Your task to perform on an android device: Open Google Chrome and click the shortcut for Amazon.com Image 0: 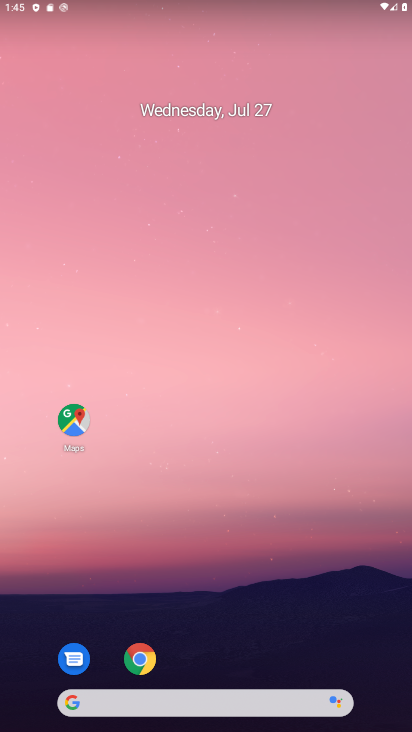
Step 0: click (149, 658)
Your task to perform on an android device: Open Google Chrome and click the shortcut for Amazon.com Image 1: 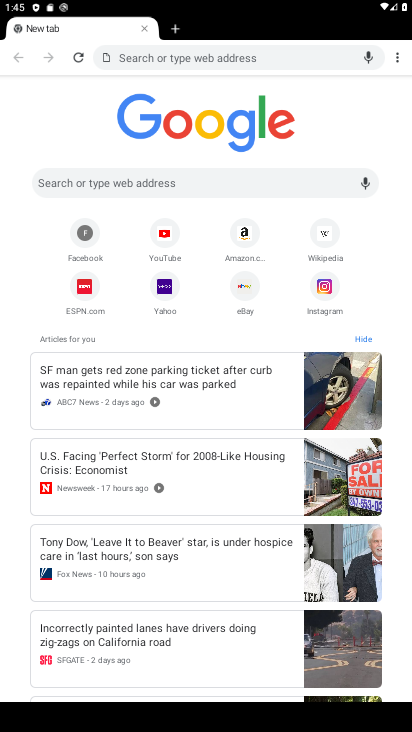
Step 1: click (239, 231)
Your task to perform on an android device: Open Google Chrome and click the shortcut for Amazon.com Image 2: 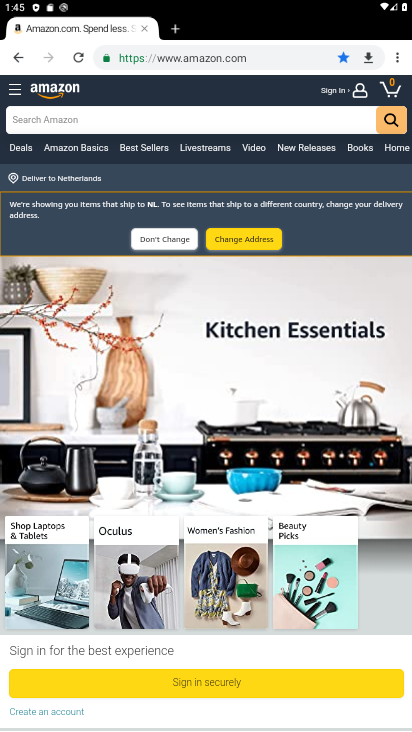
Step 2: task complete